Your task to perform on an android device: Open Youtube and go to the subscriptions tab Image 0: 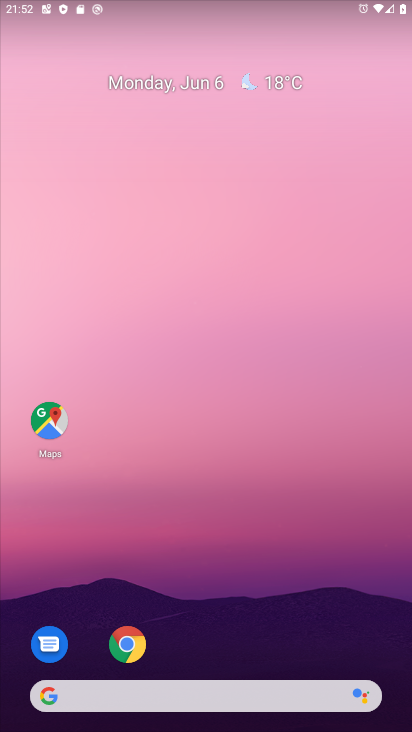
Step 0: drag from (337, 620) to (269, 187)
Your task to perform on an android device: Open Youtube and go to the subscriptions tab Image 1: 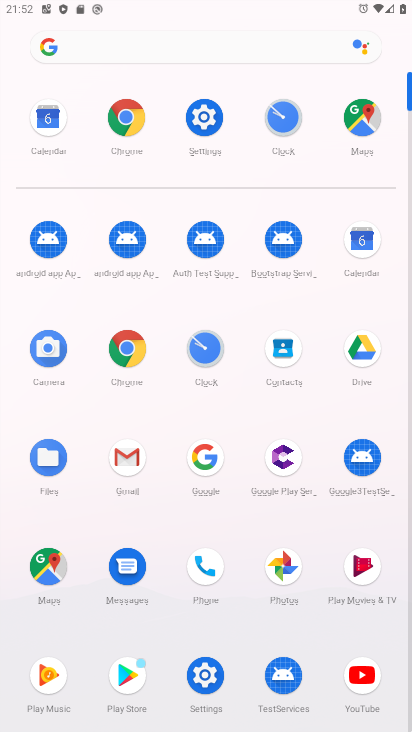
Step 1: click (359, 697)
Your task to perform on an android device: Open Youtube and go to the subscriptions tab Image 2: 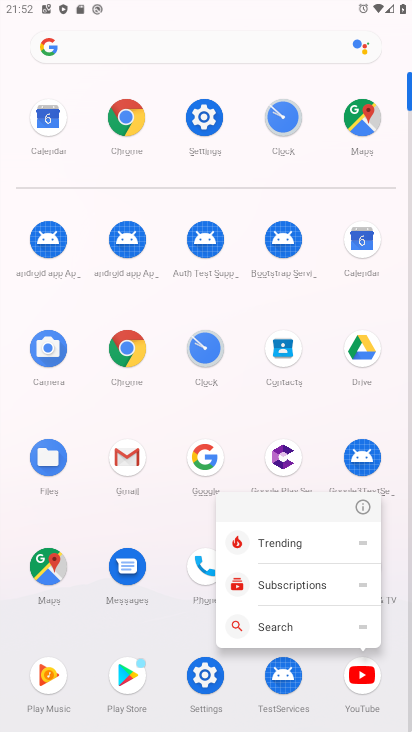
Step 2: click (357, 677)
Your task to perform on an android device: Open Youtube and go to the subscriptions tab Image 3: 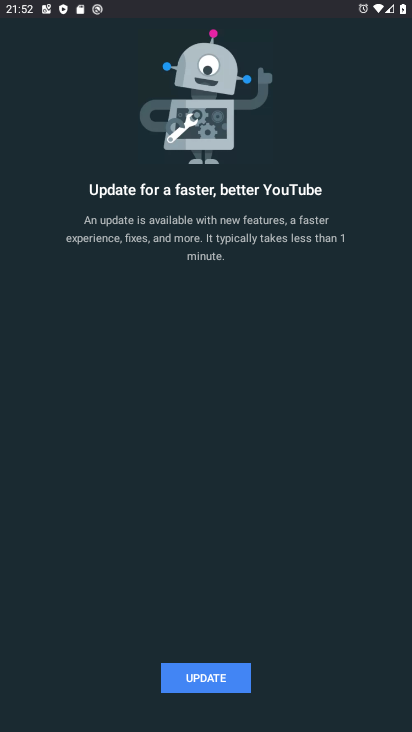
Step 3: click (237, 707)
Your task to perform on an android device: Open Youtube and go to the subscriptions tab Image 4: 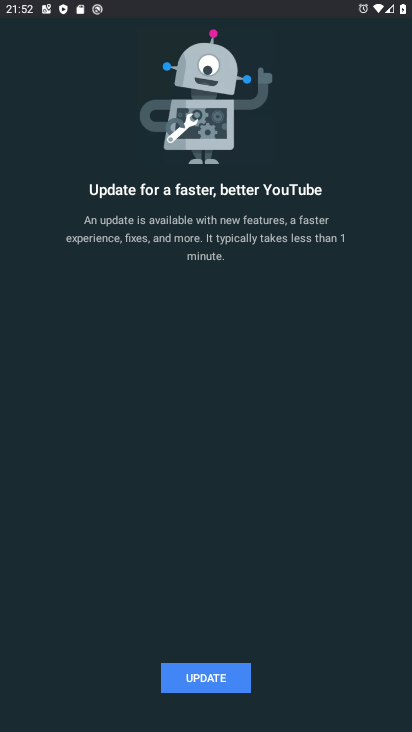
Step 4: click (200, 689)
Your task to perform on an android device: Open Youtube and go to the subscriptions tab Image 5: 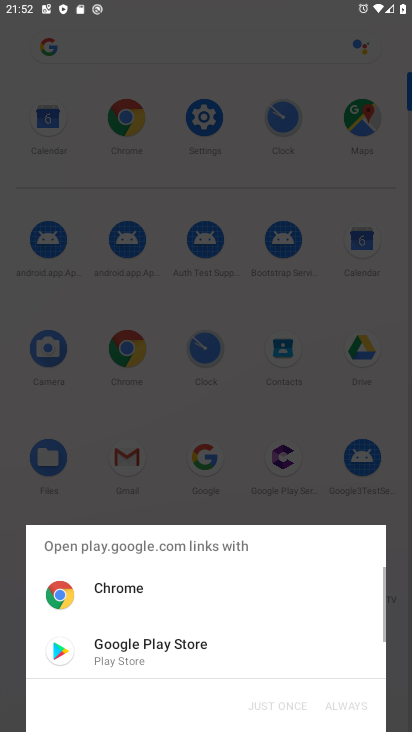
Step 5: click (177, 651)
Your task to perform on an android device: Open Youtube and go to the subscriptions tab Image 6: 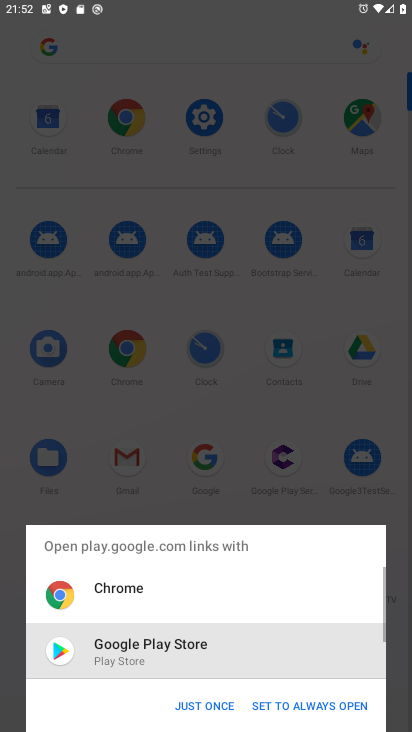
Step 6: click (194, 709)
Your task to perform on an android device: Open Youtube and go to the subscriptions tab Image 7: 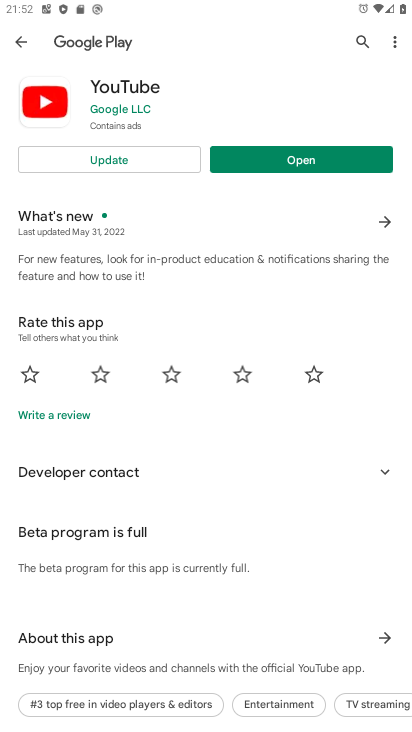
Step 7: click (144, 160)
Your task to perform on an android device: Open Youtube and go to the subscriptions tab Image 8: 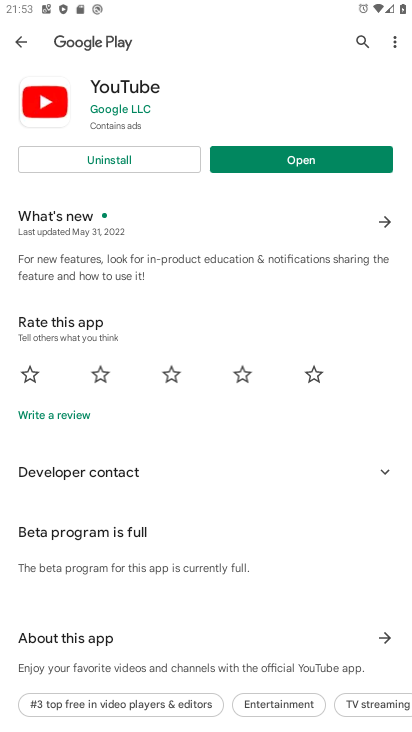
Step 8: click (275, 165)
Your task to perform on an android device: Open Youtube and go to the subscriptions tab Image 9: 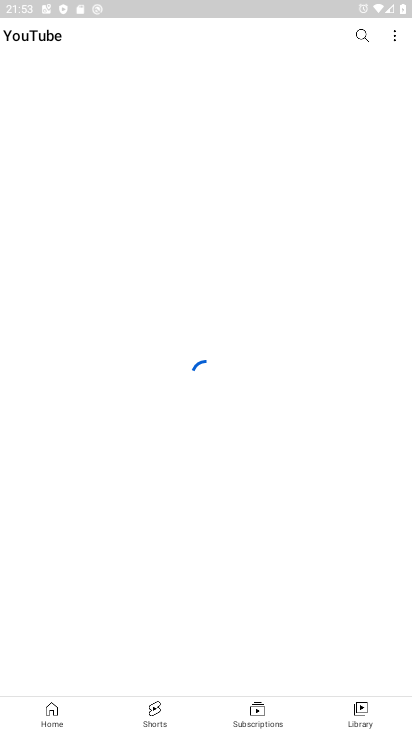
Step 9: click (249, 722)
Your task to perform on an android device: Open Youtube and go to the subscriptions tab Image 10: 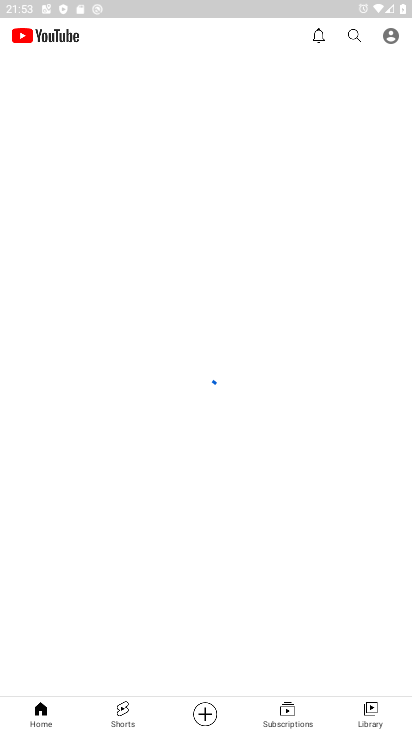
Step 10: click (277, 719)
Your task to perform on an android device: Open Youtube and go to the subscriptions tab Image 11: 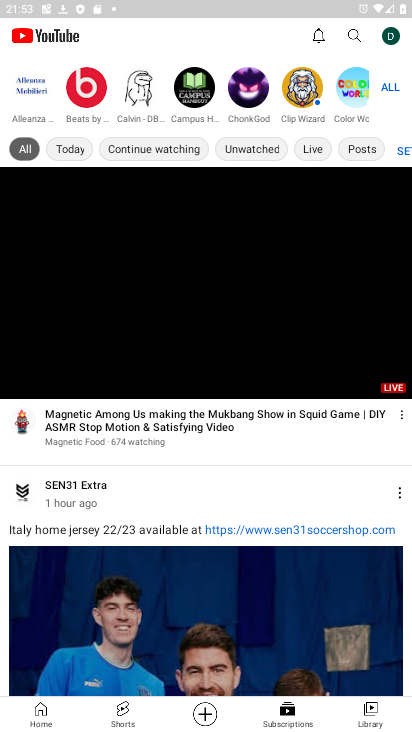
Step 11: task complete